Your task to perform on an android device: allow cookies in the chrome app Image 0: 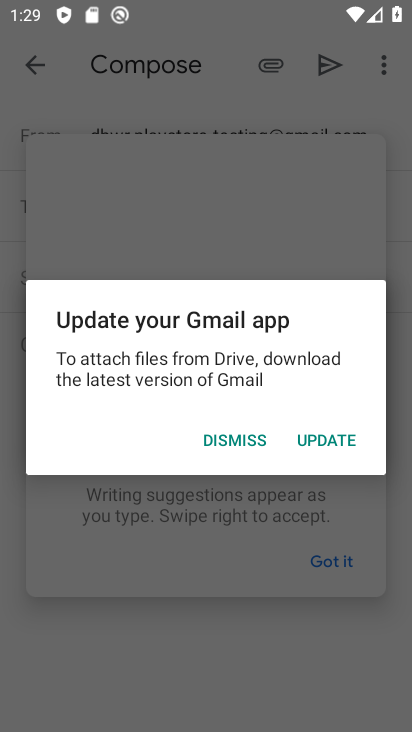
Step 0: press home button
Your task to perform on an android device: allow cookies in the chrome app Image 1: 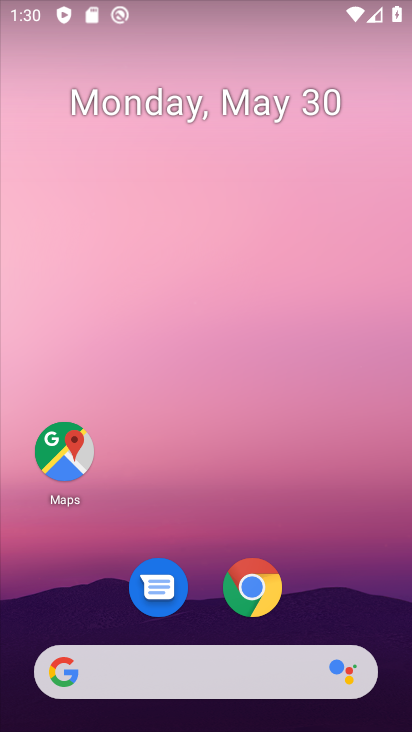
Step 1: click (233, 563)
Your task to perform on an android device: allow cookies in the chrome app Image 2: 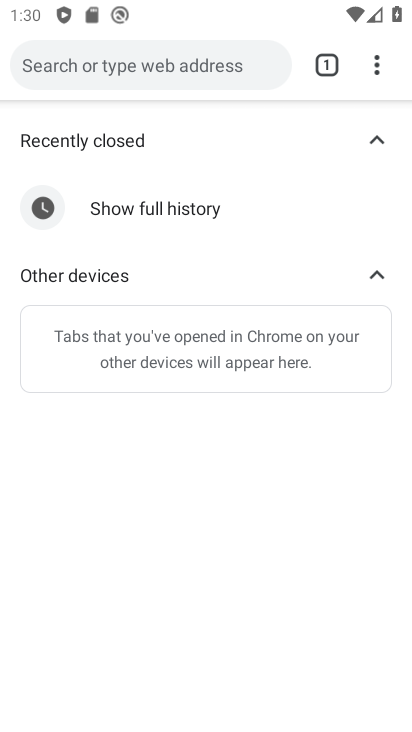
Step 2: click (383, 68)
Your task to perform on an android device: allow cookies in the chrome app Image 3: 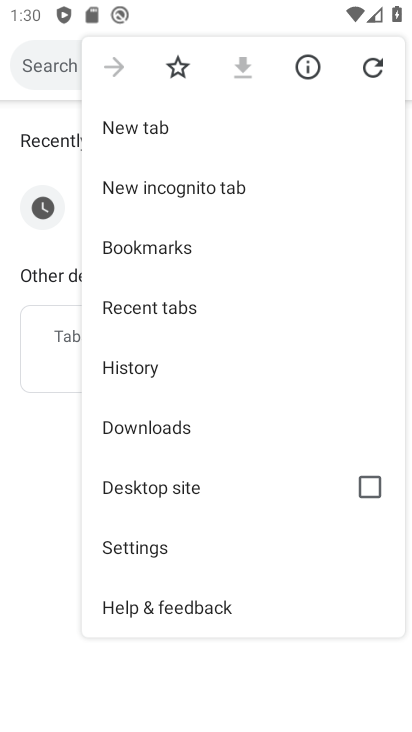
Step 3: click (156, 554)
Your task to perform on an android device: allow cookies in the chrome app Image 4: 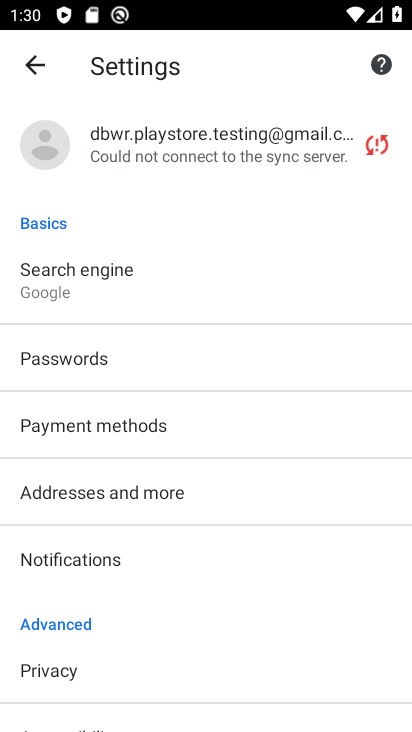
Step 4: drag from (165, 626) to (215, 272)
Your task to perform on an android device: allow cookies in the chrome app Image 5: 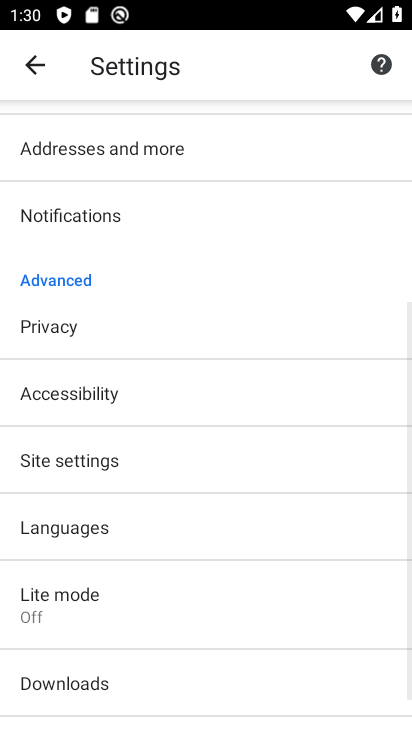
Step 5: click (81, 462)
Your task to perform on an android device: allow cookies in the chrome app Image 6: 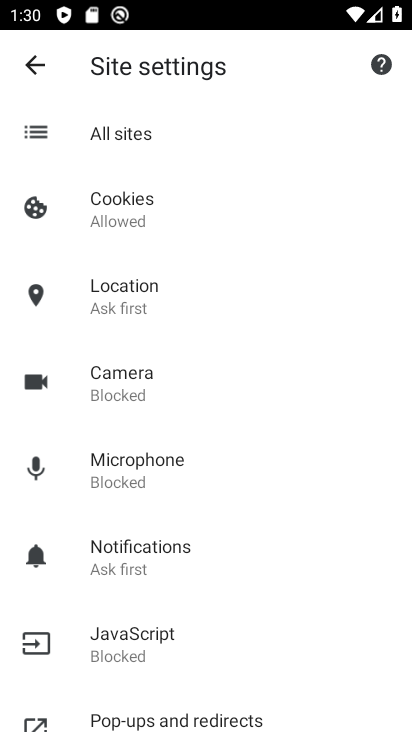
Step 6: click (129, 210)
Your task to perform on an android device: allow cookies in the chrome app Image 7: 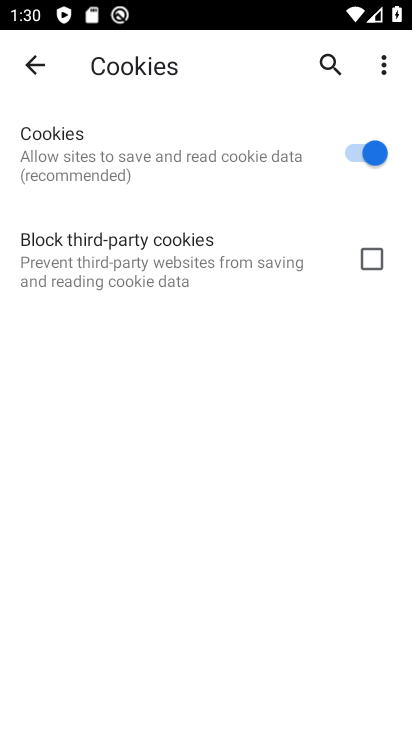
Step 7: task complete